Your task to perform on an android device: Search for a new foundation (skincare) product Image 0: 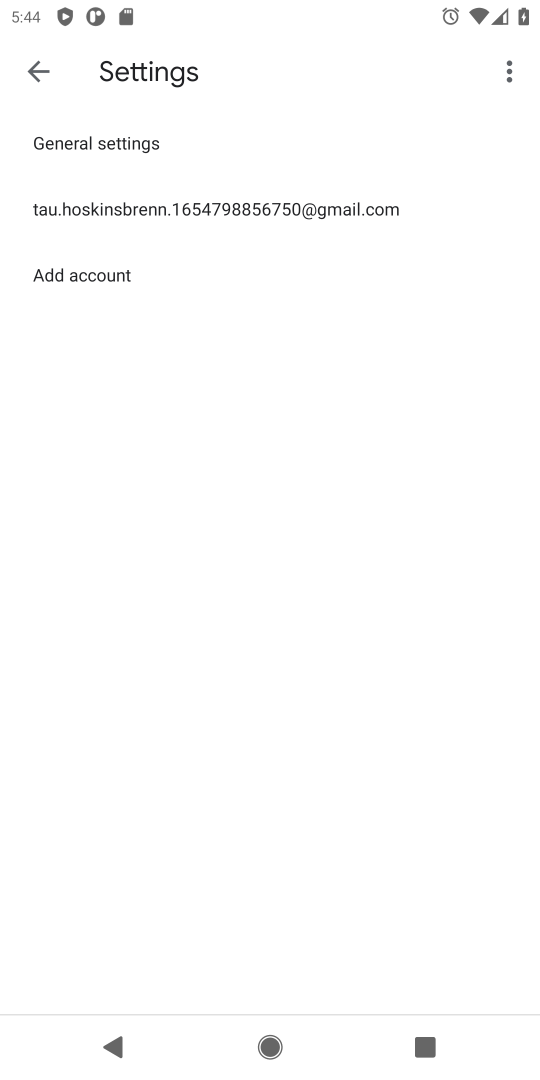
Step 0: press home button
Your task to perform on an android device: Search for a new foundation (skincare) product Image 1: 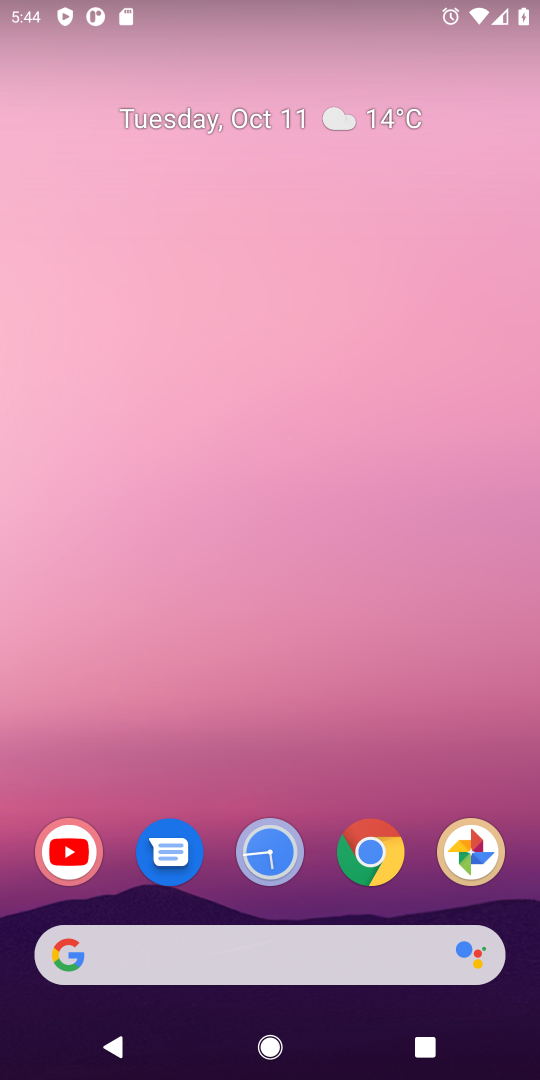
Step 1: click (373, 878)
Your task to perform on an android device: Search for a new foundation (skincare) product Image 2: 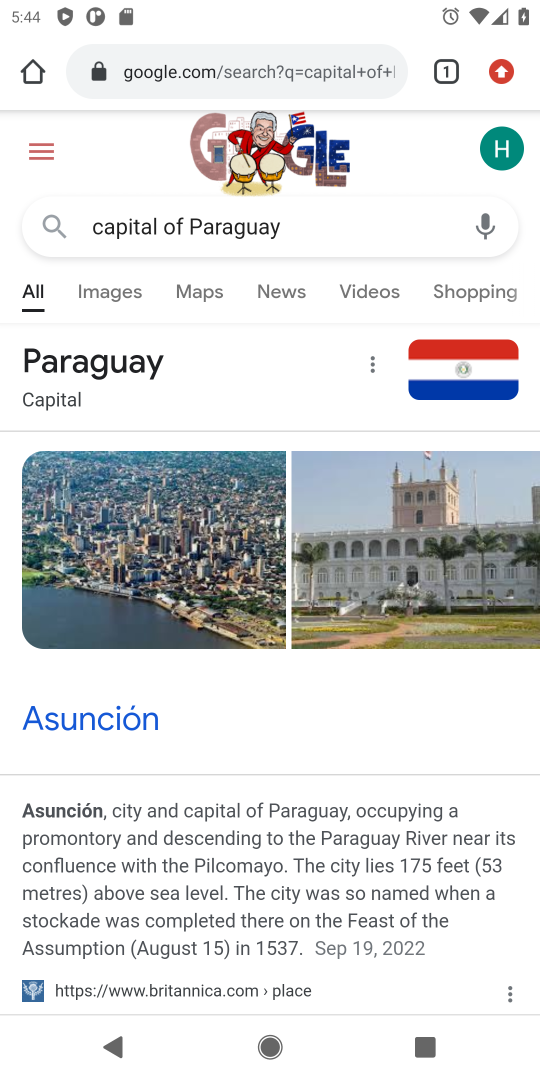
Step 2: click (218, 74)
Your task to perform on an android device: Search for a new foundation (skincare) product Image 3: 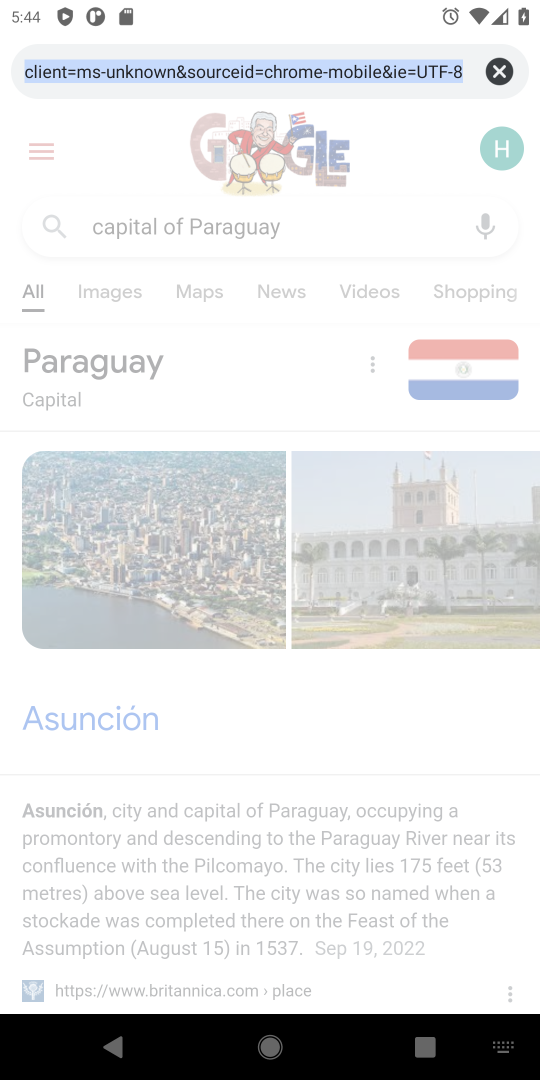
Step 3: type "new foundation (skincare) product"
Your task to perform on an android device: Search for a new foundation (skincare) product Image 4: 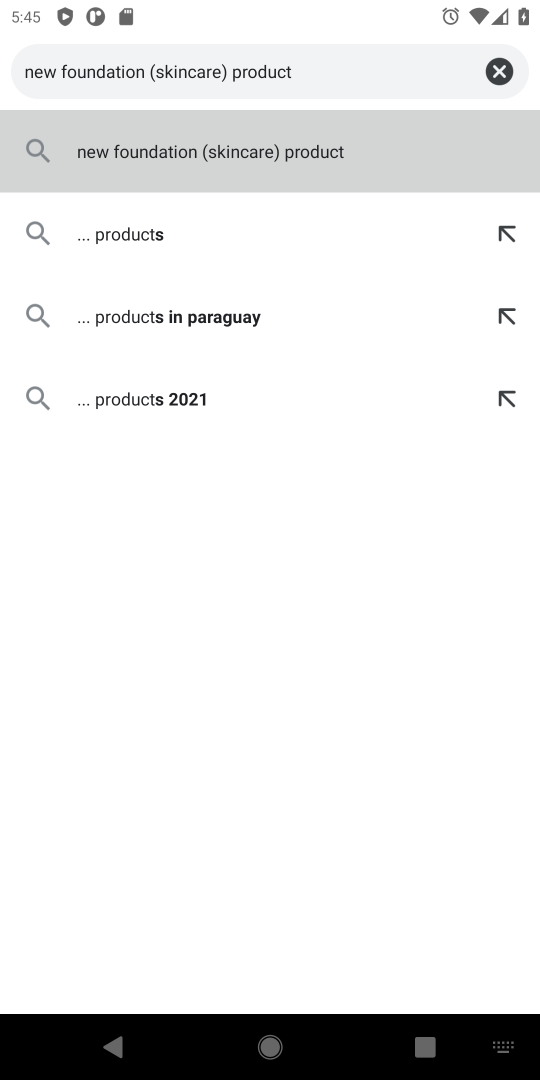
Step 4: click (169, 160)
Your task to perform on an android device: Search for a new foundation (skincare) product Image 5: 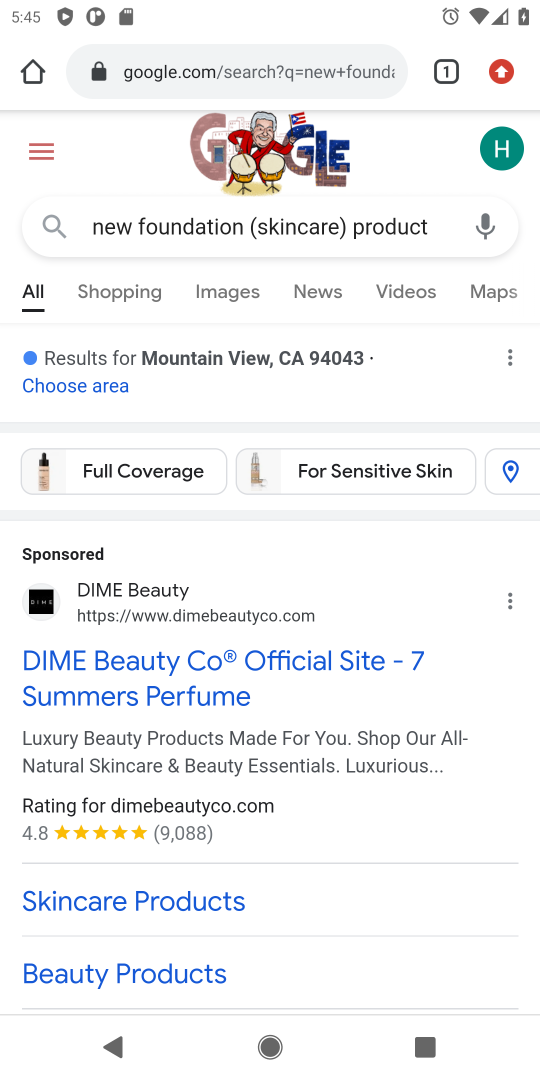
Step 5: task complete